Your task to perform on an android device: Go to calendar. Show me events next week Image 0: 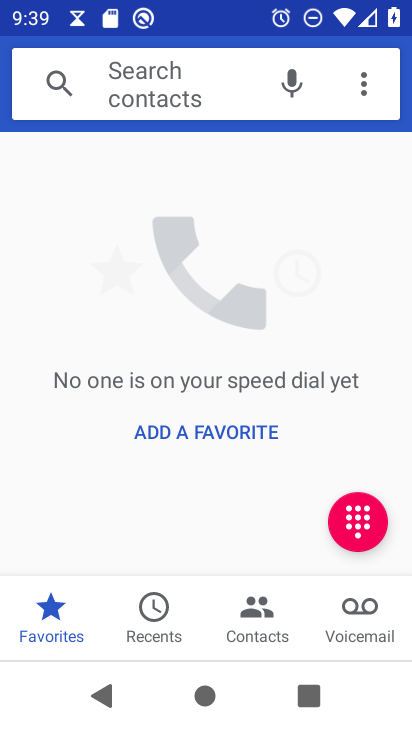
Step 0: press home button
Your task to perform on an android device: Go to calendar. Show me events next week Image 1: 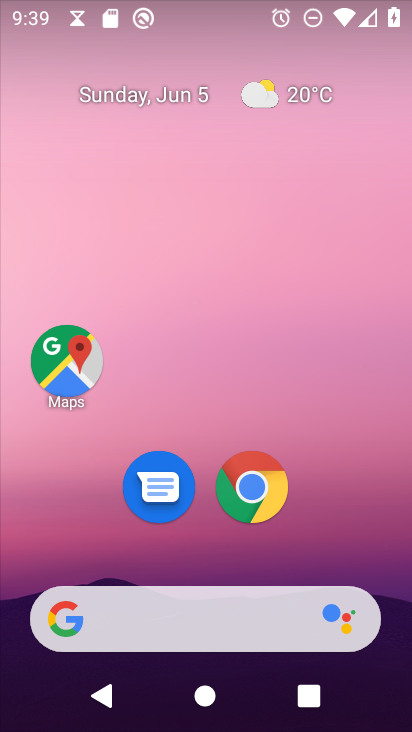
Step 1: drag from (269, 546) to (326, 254)
Your task to perform on an android device: Go to calendar. Show me events next week Image 2: 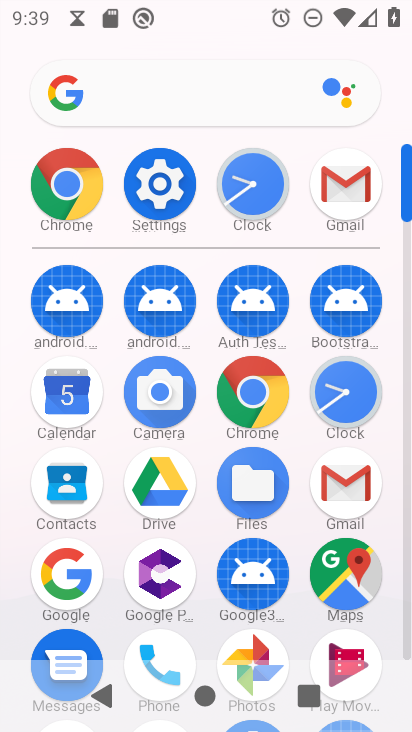
Step 2: click (72, 391)
Your task to perform on an android device: Go to calendar. Show me events next week Image 3: 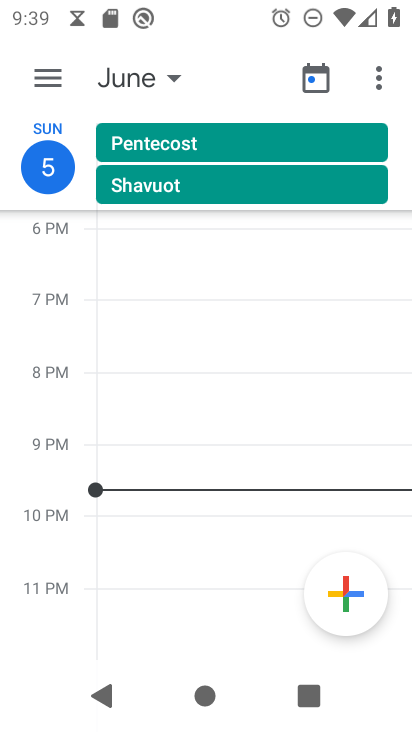
Step 3: click (53, 69)
Your task to perform on an android device: Go to calendar. Show me events next week Image 4: 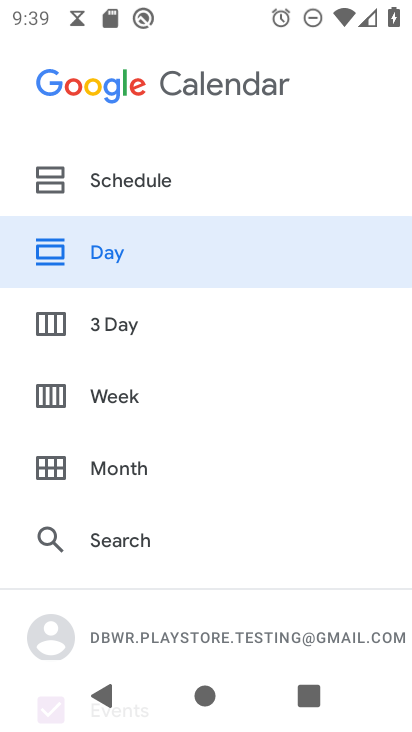
Step 4: click (140, 406)
Your task to perform on an android device: Go to calendar. Show me events next week Image 5: 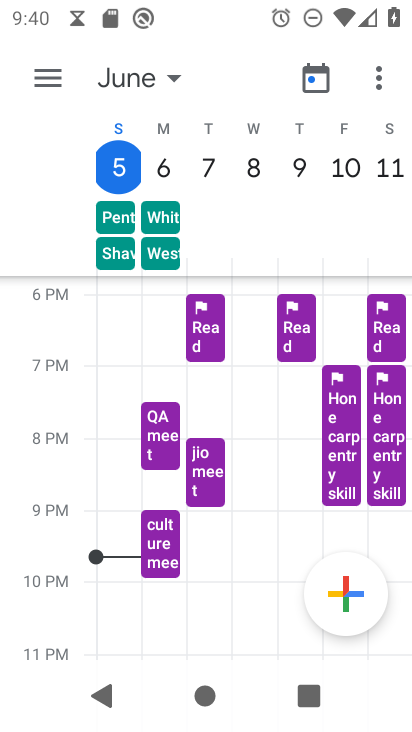
Step 5: task complete